Your task to perform on an android device: See recent photos Image 0: 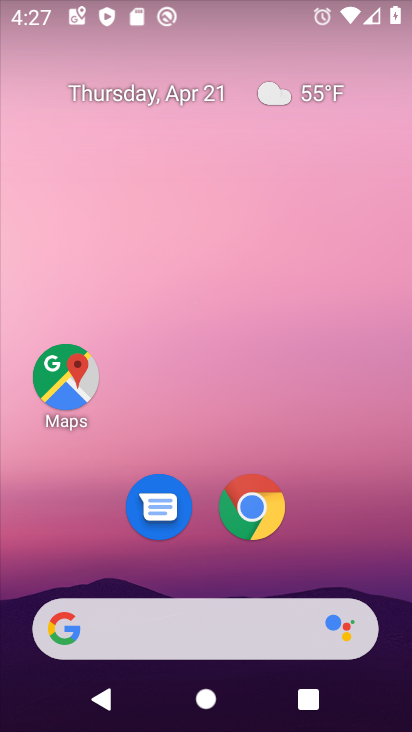
Step 0: drag from (287, 474) to (192, 58)
Your task to perform on an android device: See recent photos Image 1: 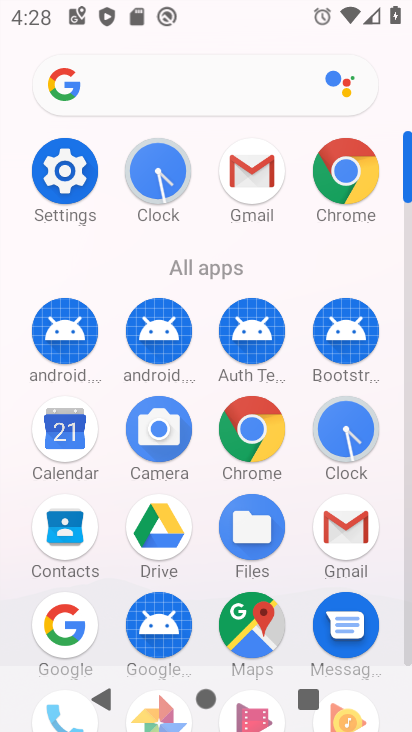
Step 1: drag from (377, 546) to (308, 220)
Your task to perform on an android device: See recent photos Image 2: 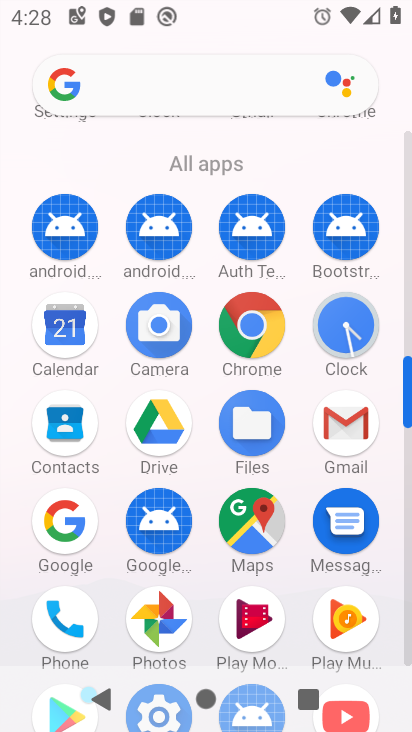
Step 2: click (153, 612)
Your task to perform on an android device: See recent photos Image 3: 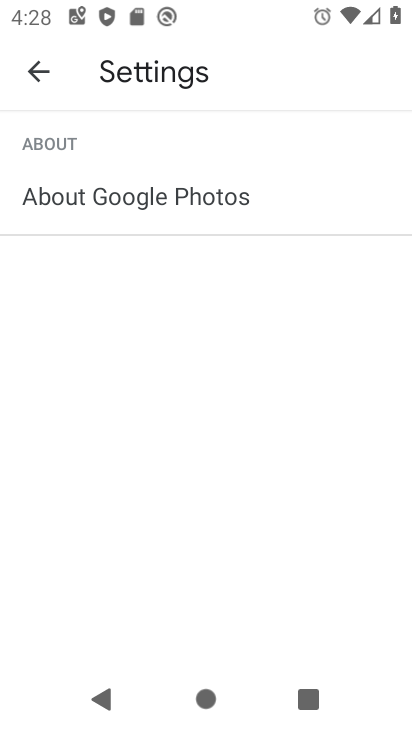
Step 3: click (41, 94)
Your task to perform on an android device: See recent photos Image 4: 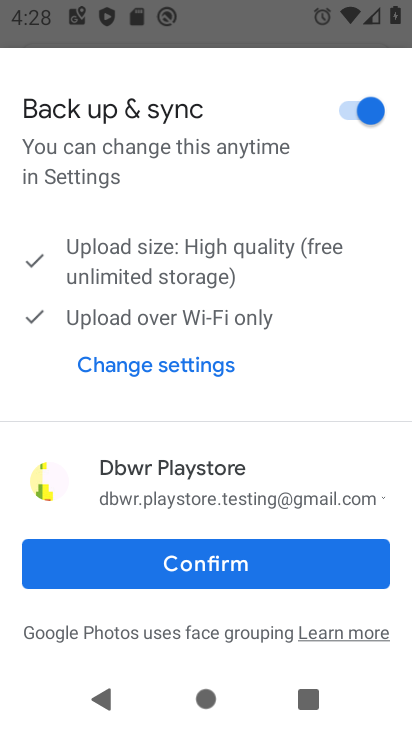
Step 4: click (271, 569)
Your task to perform on an android device: See recent photos Image 5: 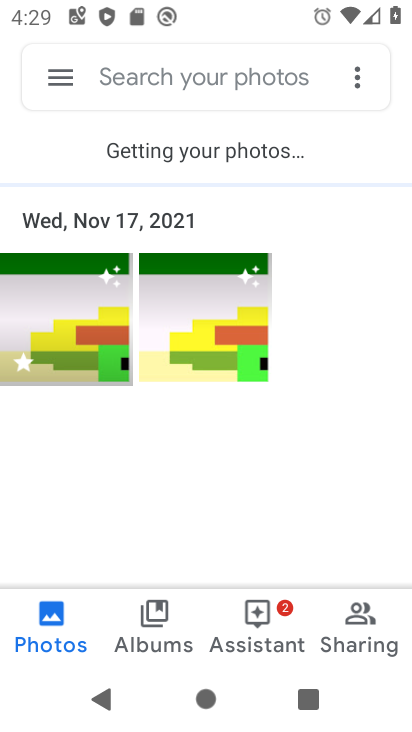
Step 5: click (95, 338)
Your task to perform on an android device: See recent photos Image 6: 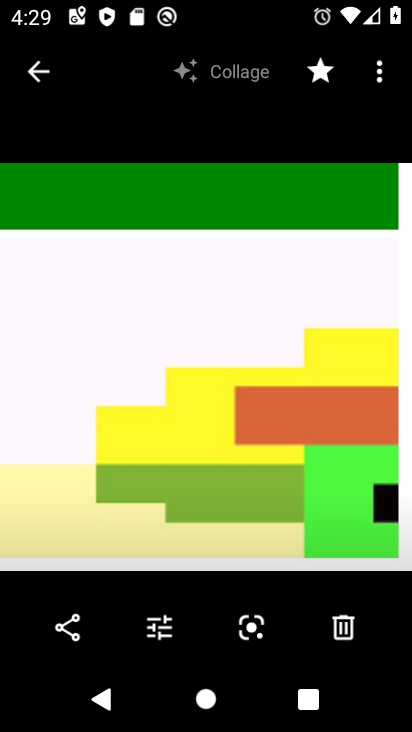
Step 6: task complete